Your task to perform on an android device: see sites visited before in the chrome app Image 0: 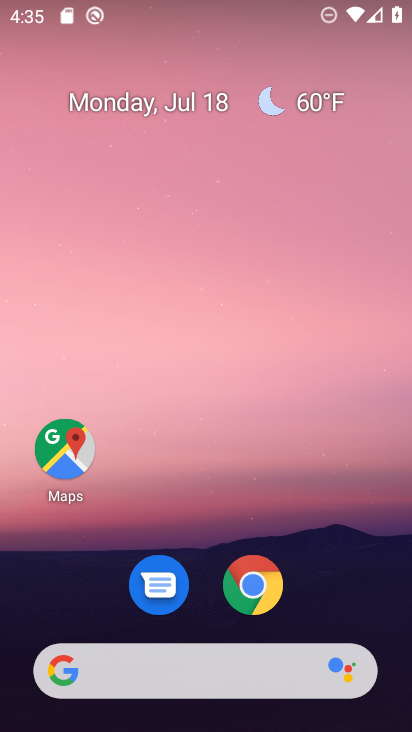
Step 0: press home button
Your task to perform on an android device: see sites visited before in the chrome app Image 1: 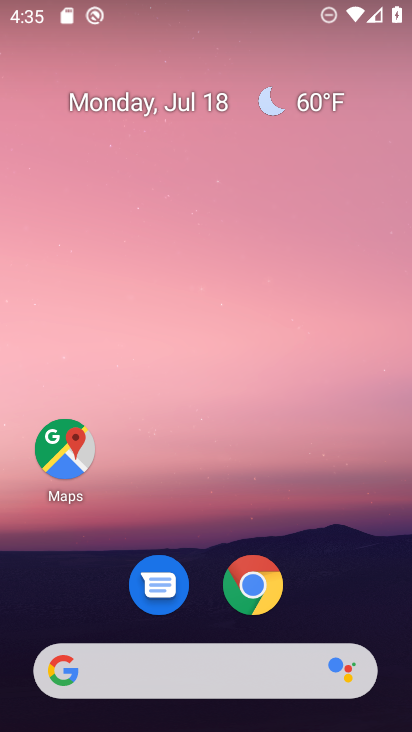
Step 1: drag from (303, 501) to (361, 104)
Your task to perform on an android device: see sites visited before in the chrome app Image 2: 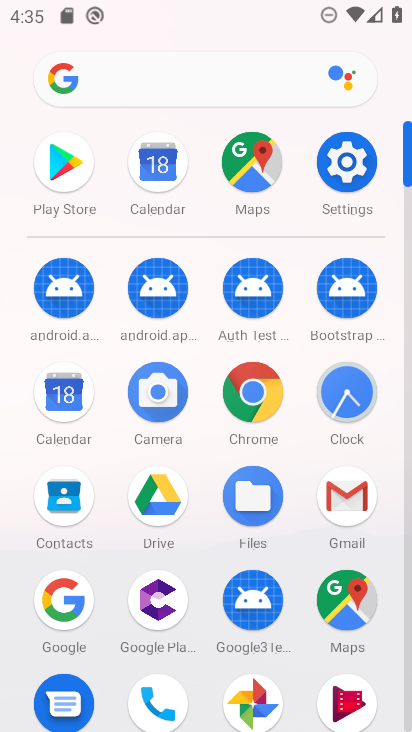
Step 2: click (256, 390)
Your task to perform on an android device: see sites visited before in the chrome app Image 3: 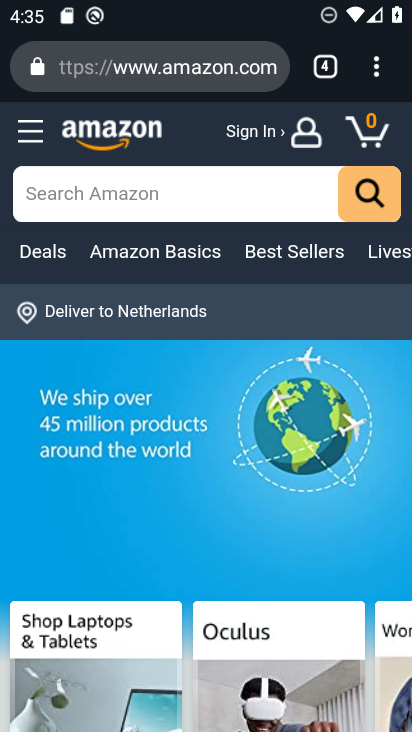
Step 3: click (379, 70)
Your task to perform on an android device: see sites visited before in the chrome app Image 4: 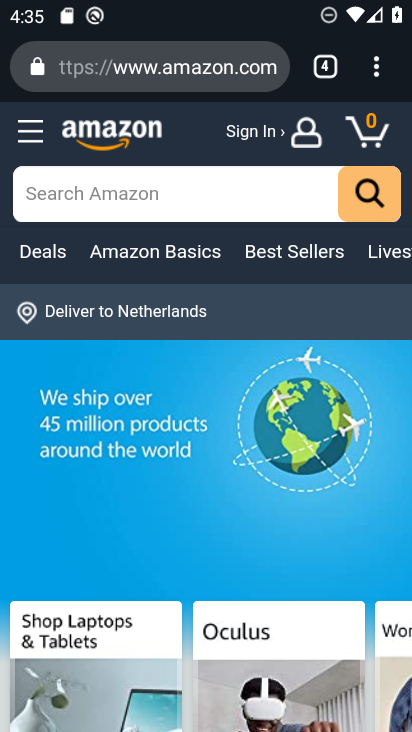
Step 4: click (379, 75)
Your task to perform on an android device: see sites visited before in the chrome app Image 5: 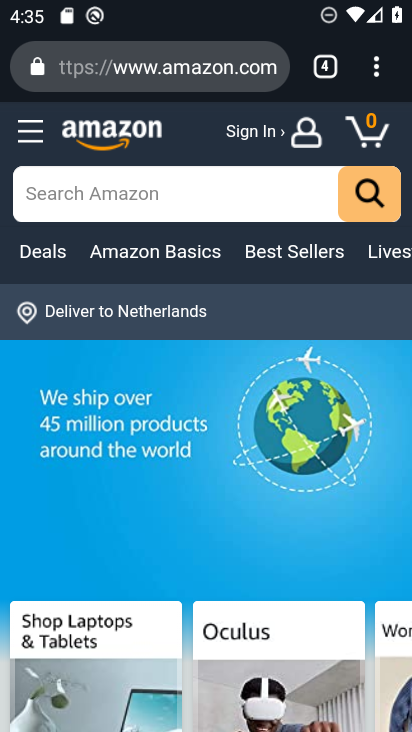
Step 5: click (379, 75)
Your task to perform on an android device: see sites visited before in the chrome app Image 6: 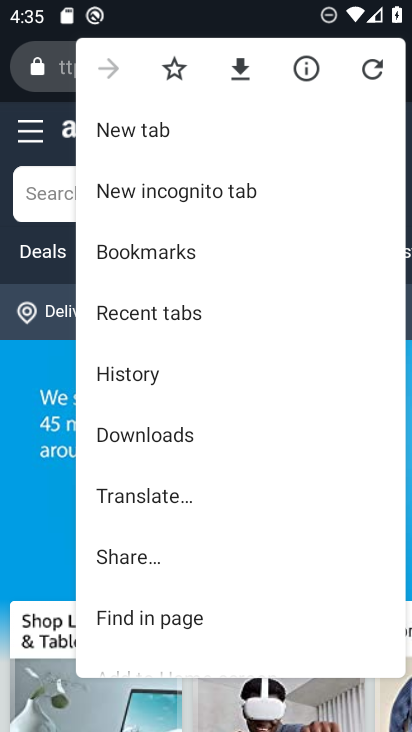
Step 6: click (188, 313)
Your task to perform on an android device: see sites visited before in the chrome app Image 7: 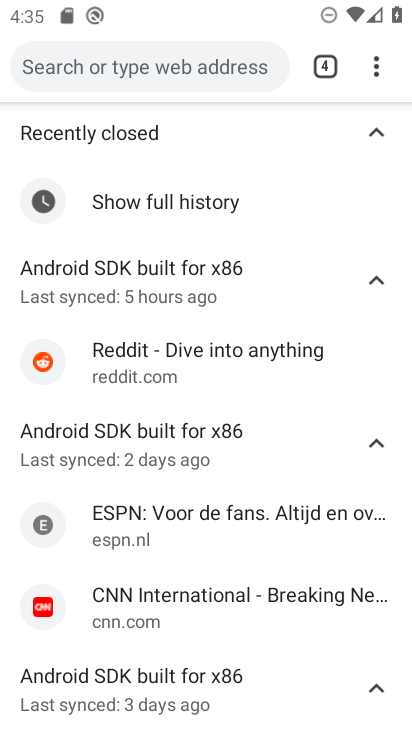
Step 7: task complete